Your task to perform on an android device: Search for the best lawnmowers on Lowes.com Image 0: 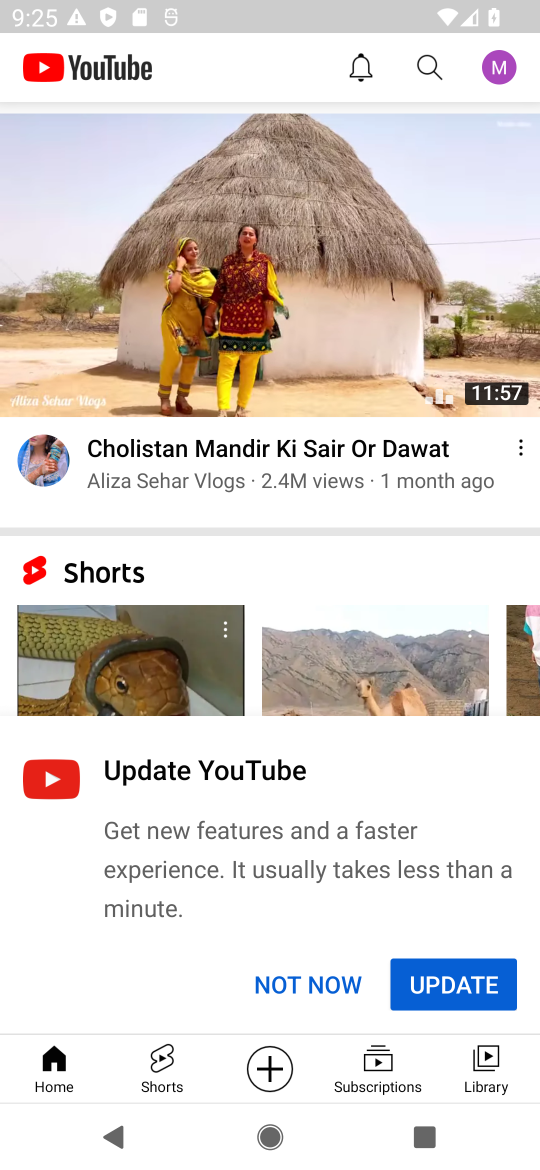
Step 0: press home button
Your task to perform on an android device: Search for the best lawnmowers on Lowes.com Image 1: 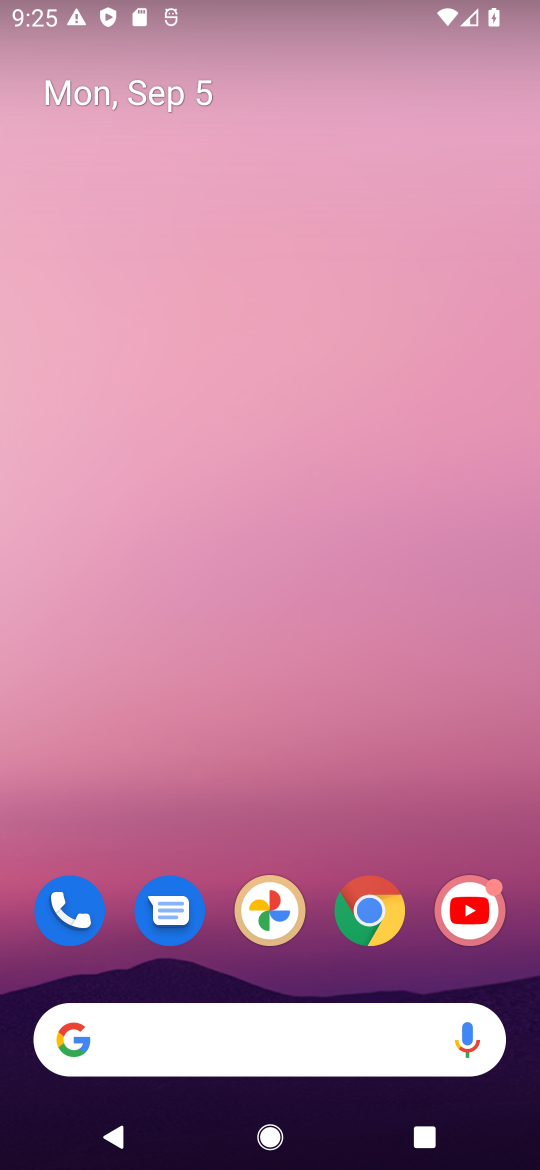
Step 1: click (382, 918)
Your task to perform on an android device: Search for the best lawnmowers on Lowes.com Image 2: 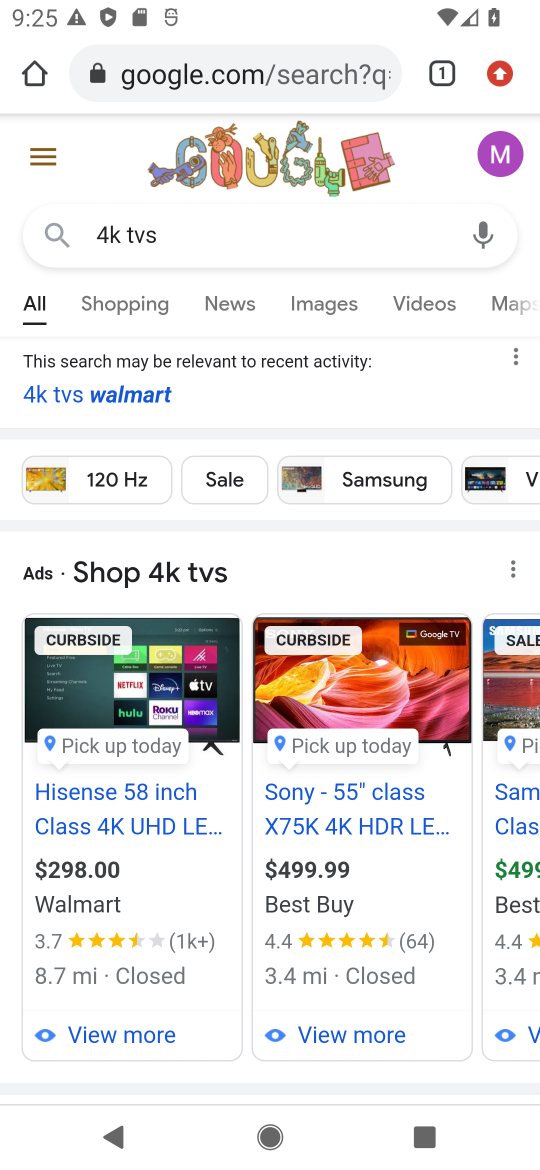
Step 2: click (345, 82)
Your task to perform on an android device: Search for the best lawnmowers on Lowes.com Image 3: 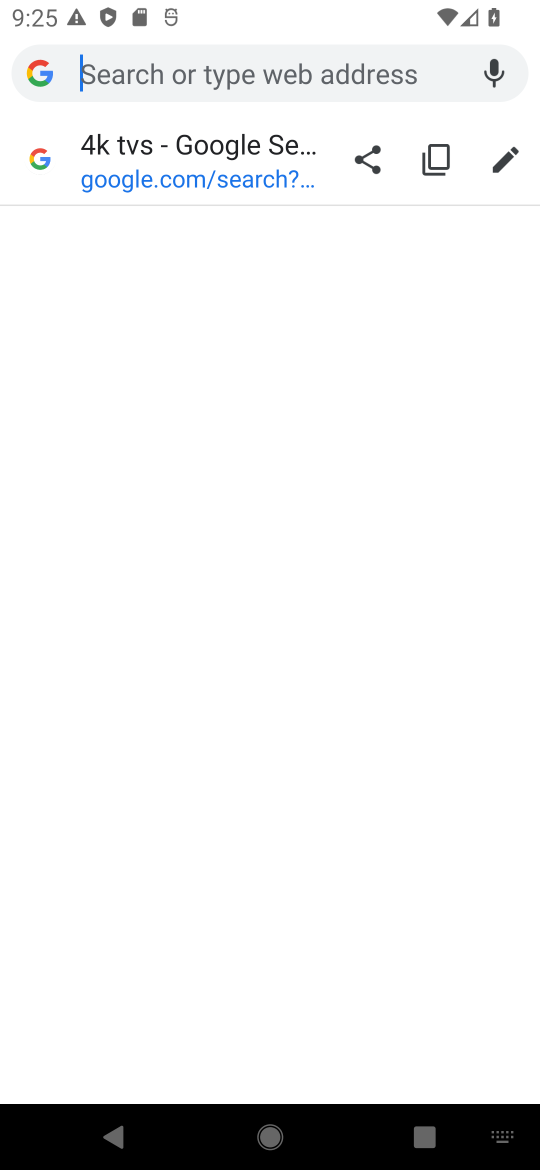
Step 3: type "lowes.com"
Your task to perform on an android device: Search for the best lawnmowers on Lowes.com Image 4: 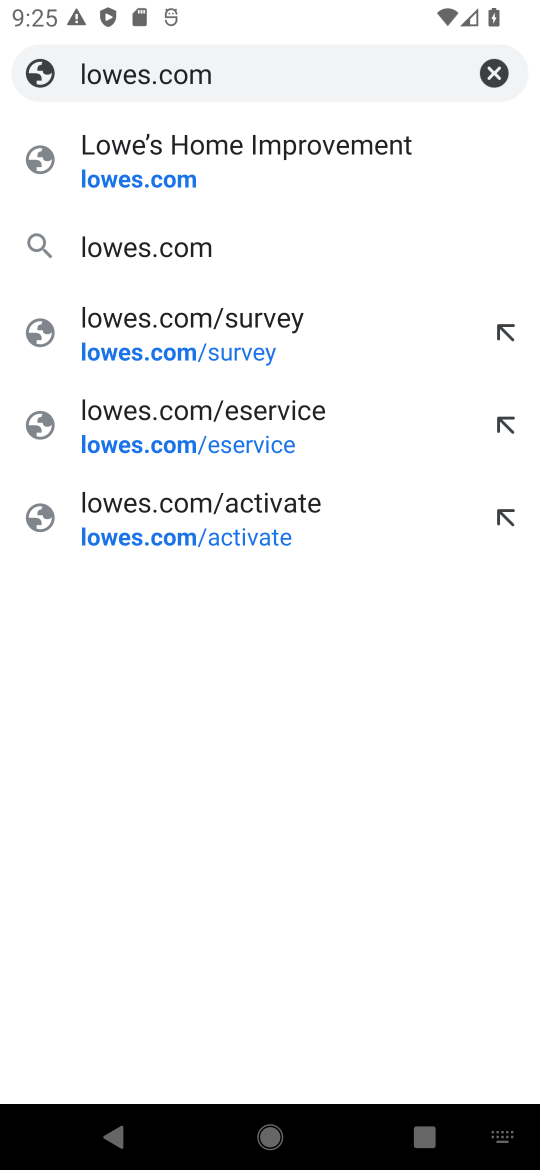
Step 4: click (231, 156)
Your task to perform on an android device: Search for the best lawnmowers on Lowes.com Image 5: 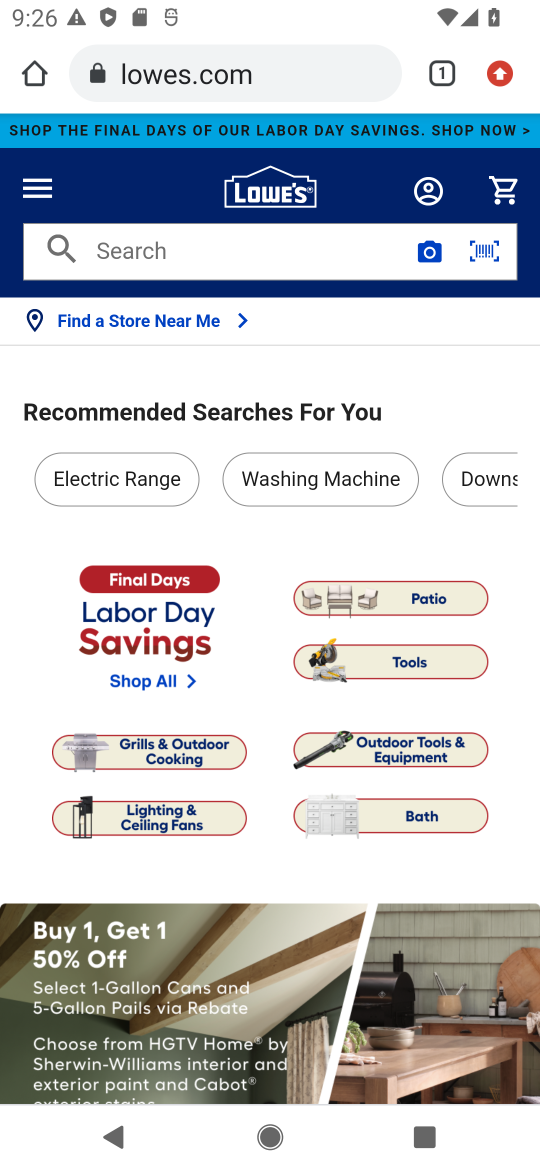
Step 5: click (216, 260)
Your task to perform on an android device: Search for the best lawnmowers on Lowes.com Image 6: 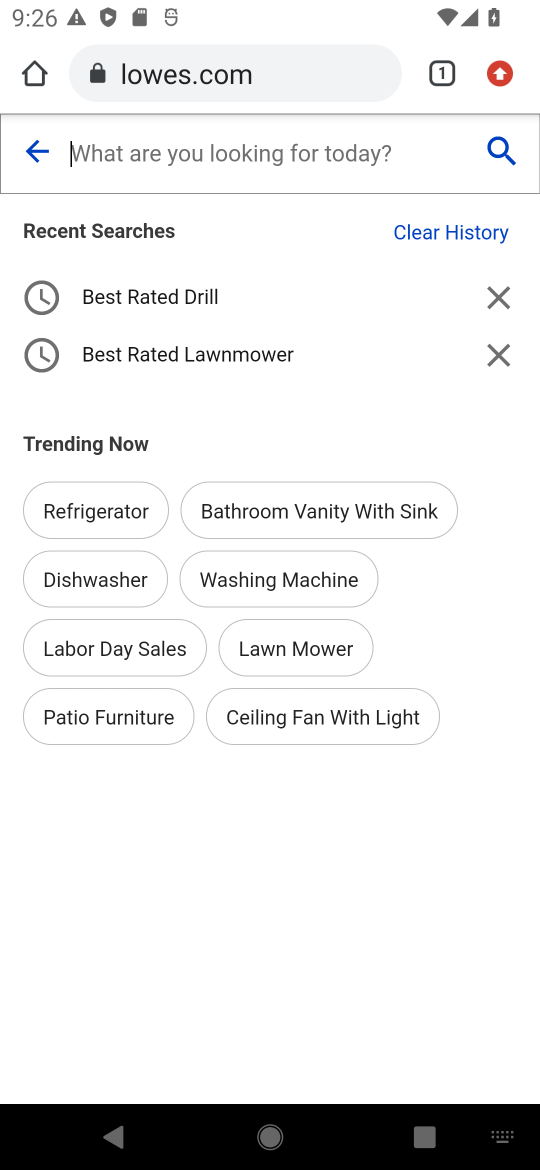
Step 6: type "best lawnmowers"
Your task to perform on an android device: Search for the best lawnmowers on Lowes.com Image 7: 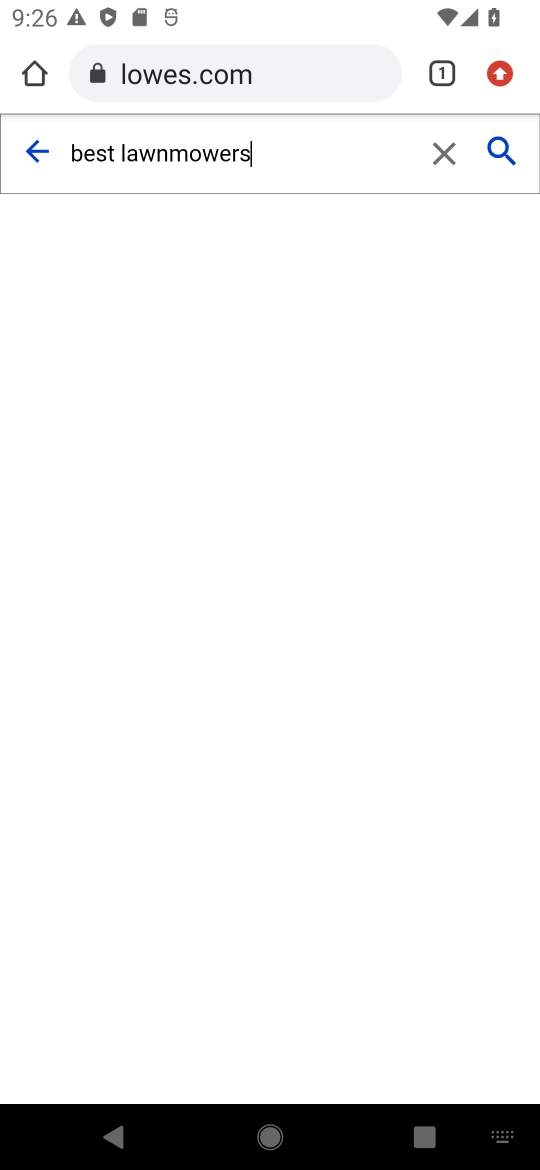
Step 7: press enter
Your task to perform on an android device: Search for the best lawnmowers on Lowes.com Image 8: 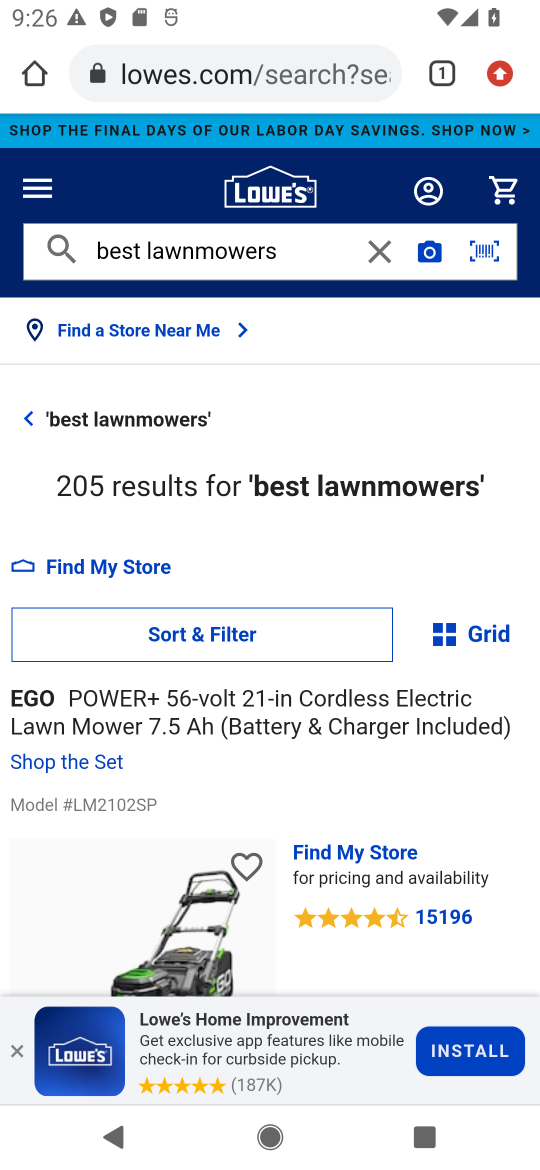
Step 8: task complete